Your task to perform on an android device: Turn on the flashlight Image 0: 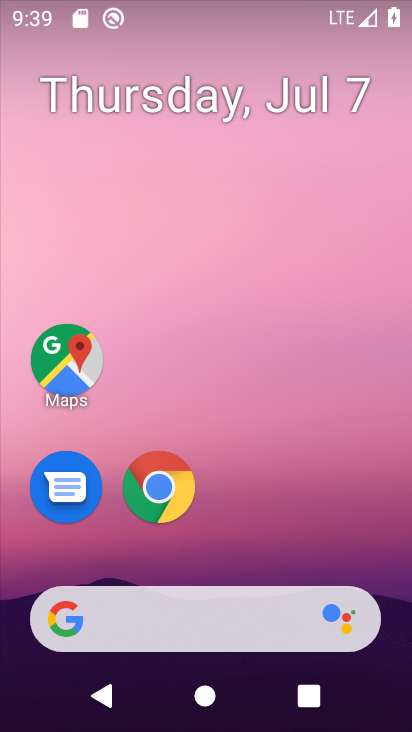
Step 0: drag from (232, 6) to (289, 336)
Your task to perform on an android device: Turn on the flashlight Image 1: 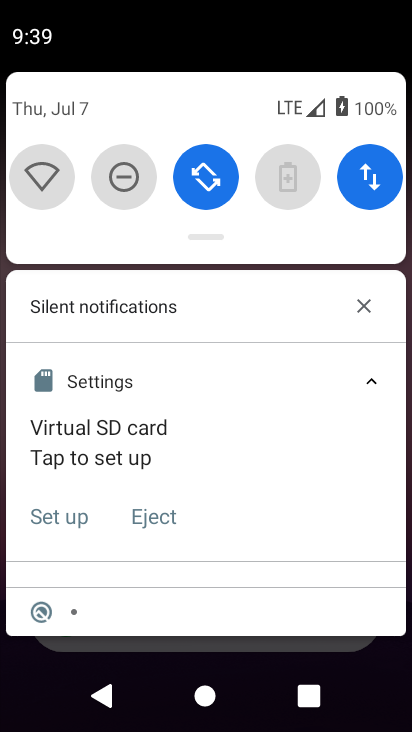
Step 1: drag from (170, 129) to (201, 324)
Your task to perform on an android device: Turn on the flashlight Image 2: 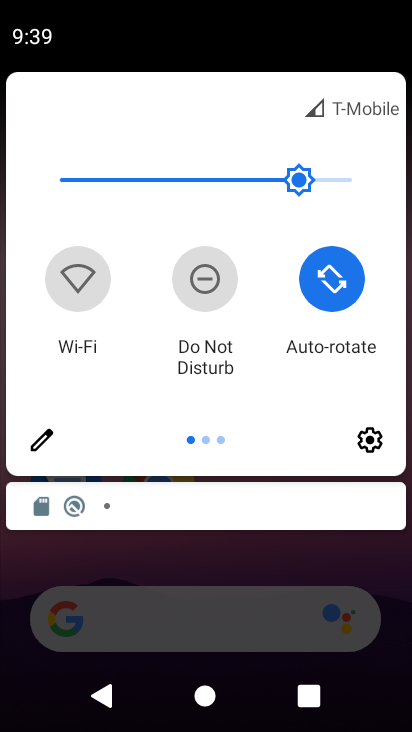
Step 2: click (46, 434)
Your task to perform on an android device: Turn on the flashlight Image 3: 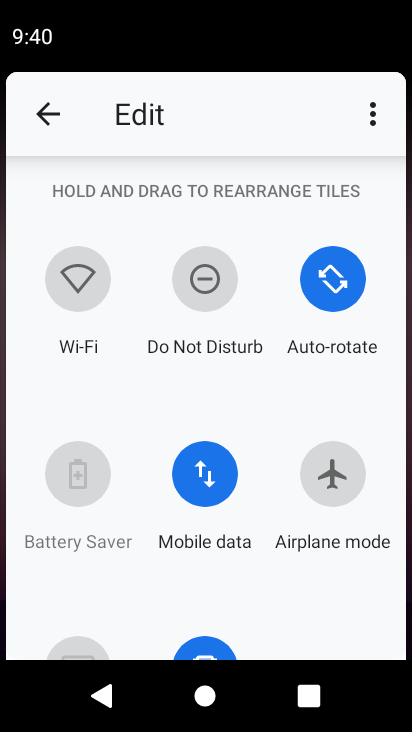
Step 3: task complete